Your task to perform on an android device: Go to Yahoo.com Image 0: 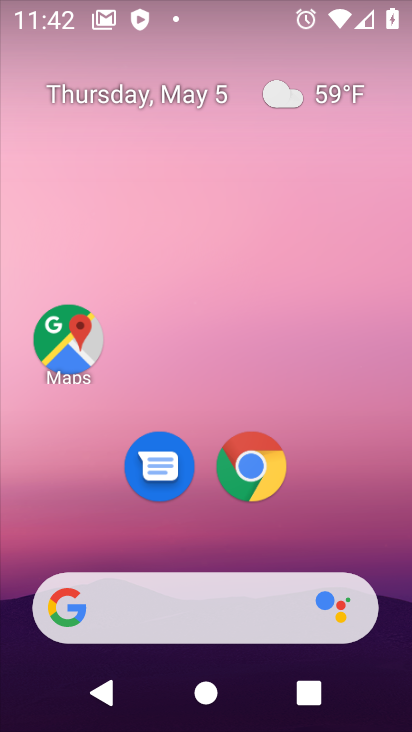
Step 0: click (255, 463)
Your task to perform on an android device: Go to Yahoo.com Image 1: 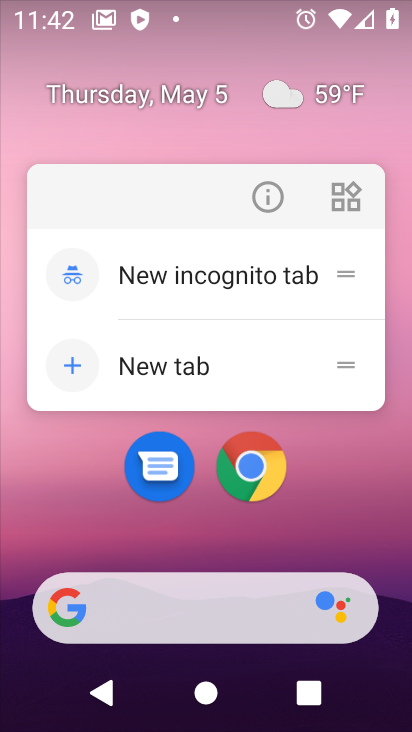
Step 1: click (266, 190)
Your task to perform on an android device: Go to Yahoo.com Image 2: 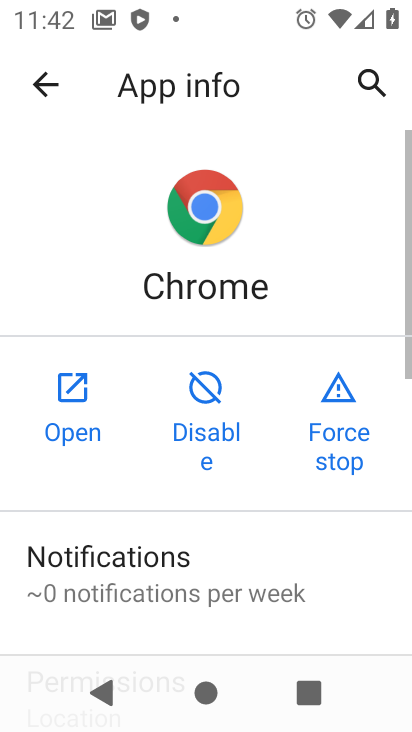
Step 2: click (79, 427)
Your task to perform on an android device: Go to Yahoo.com Image 3: 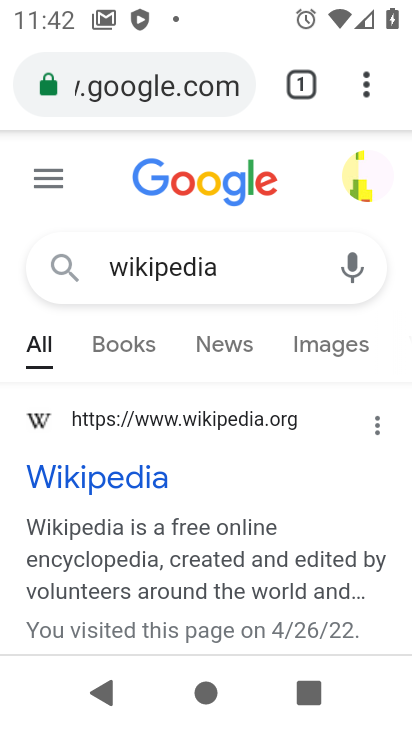
Step 3: click (147, 96)
Your task to perform on an android device: Go to Yahoo.com Image 4: 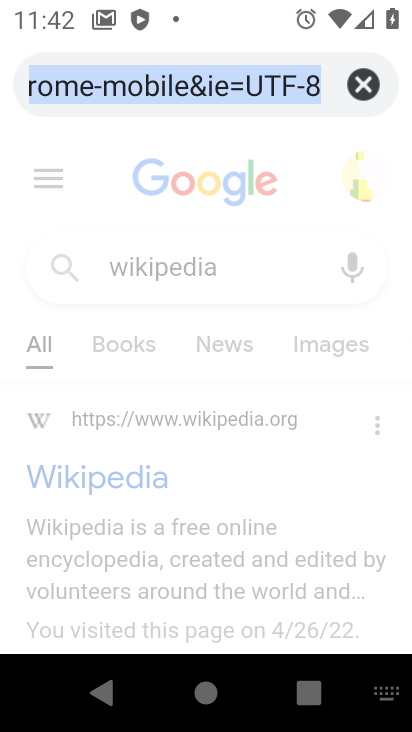
Step 4: type "yahoo.com"
Your task to perform on an android device: Go to Yahoo.com Image 5: 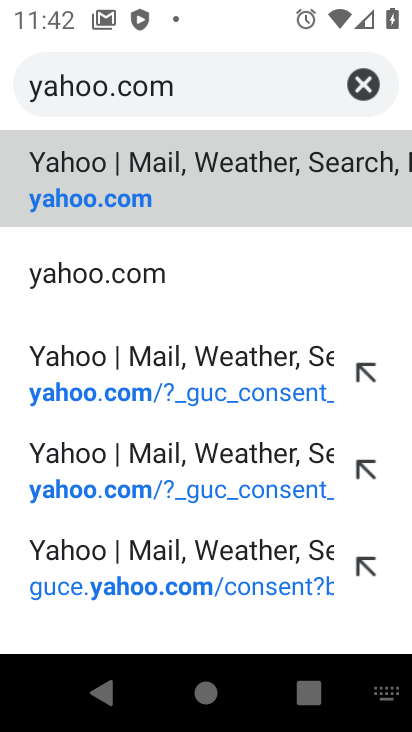
Step 5: click (120, 165)
Your task to perform on an android device: Go to Yahoo.com Image 6: 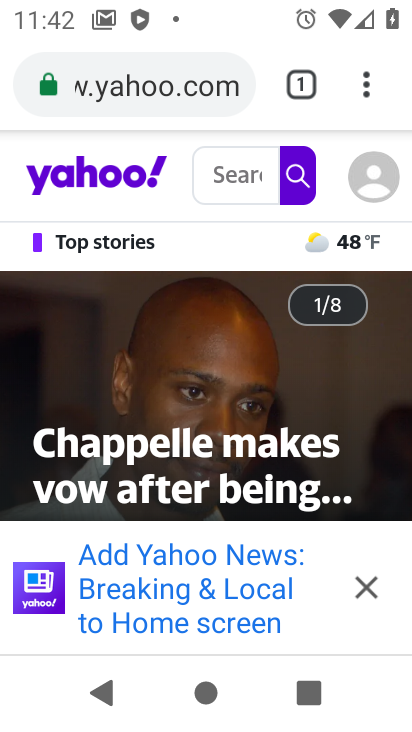
Step 6: task complete